Your task to perform on an android device: Empty the shopping cart on walmart. Image 0: 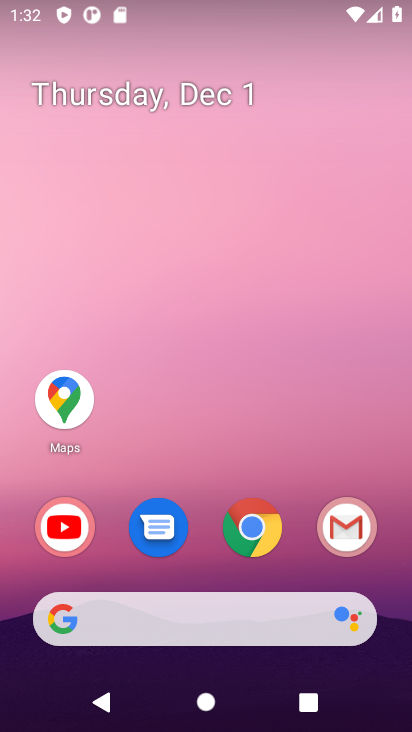
Step 0: click (258, 533)
Your task to perform on an android device: Empty the shopping cart on walmart. Image 1: 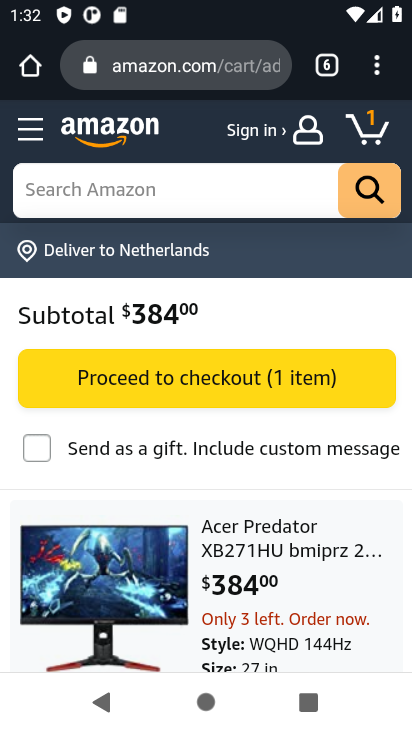
Step 1: click (146, 65)
Your task to perform on an android device: Empty the shopping cart on walmart. Image 2: 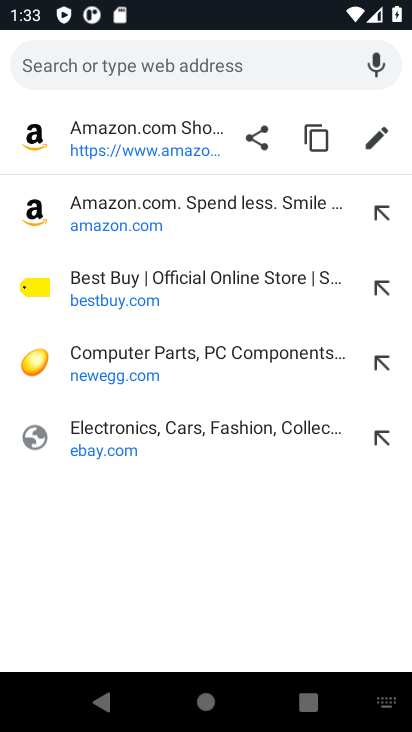
Step 2: type "walmart.com"
Your task to perform on an android device: Empty the shopping cart on walmart. Image 3: 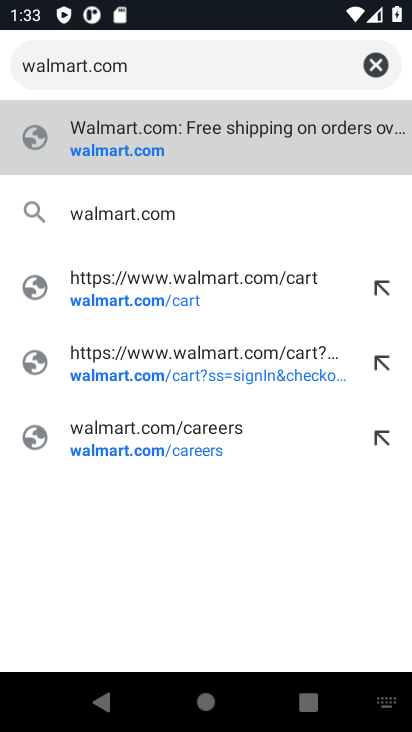
Step 3: click (142, 151)
Your task to perform on an android device: Empty the shopping cart on walmart. Image 4: 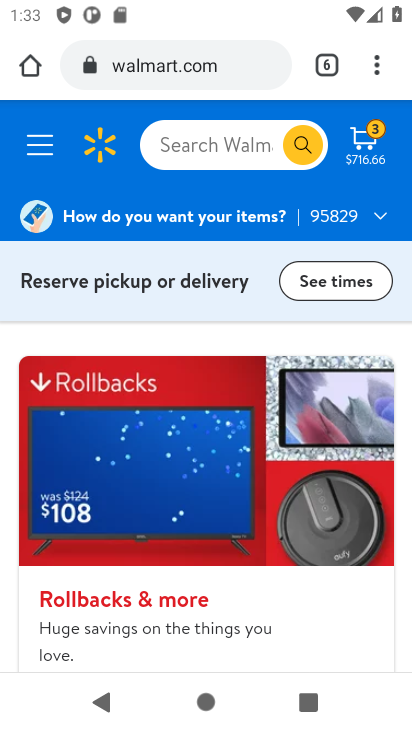
Step 4: click (375, 140)
Your task to perform on an android device: Empty the shopping cart on walmart. Image 5: 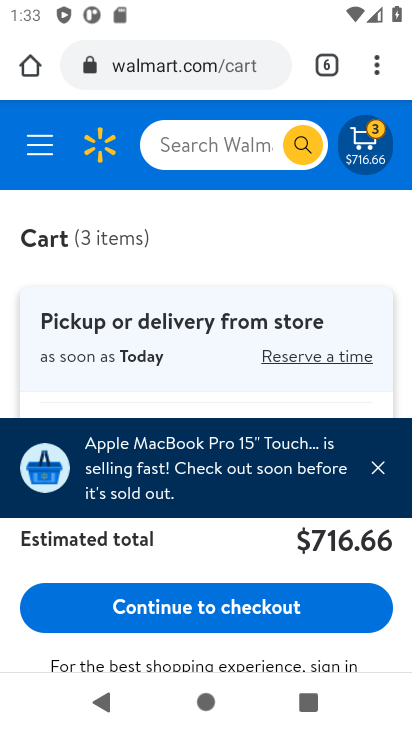
Step 5: drag from (218, 312) to (236, 116)
Your task to perform on an android device: Empty the shopping cart on walmart. Image 6: 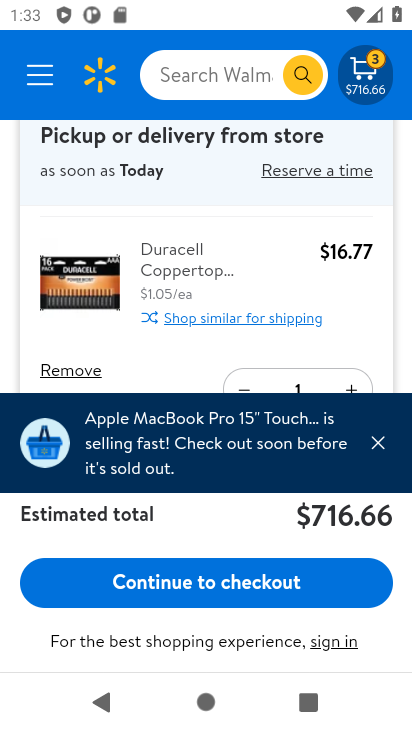
Step 6: click (381, 448)
Your task to perform on an android device: Empty the shopping cart on walmart. Image 7: 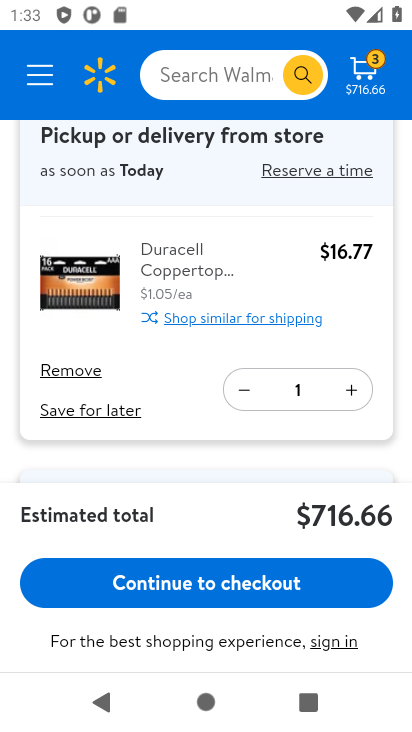
Step 7: click (80, 380)
Your task to perform on an android device: Empty the shopping cart on walmart. Image 8: 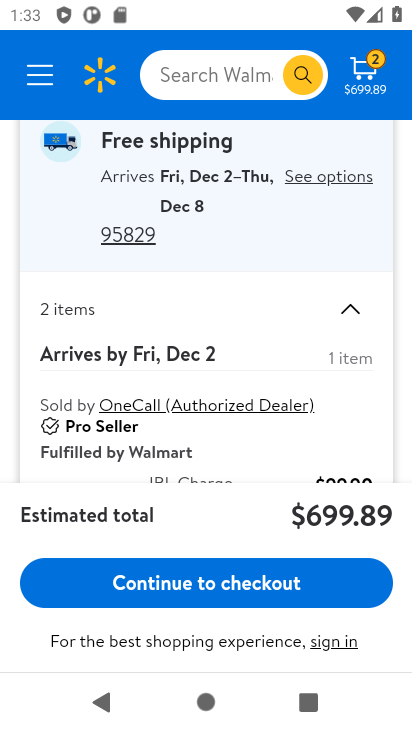
Step 8: drag from (186, 435) to (177, 282)
Your task to perform on an android device: Empty the shopping cart on walmart. Image 9: 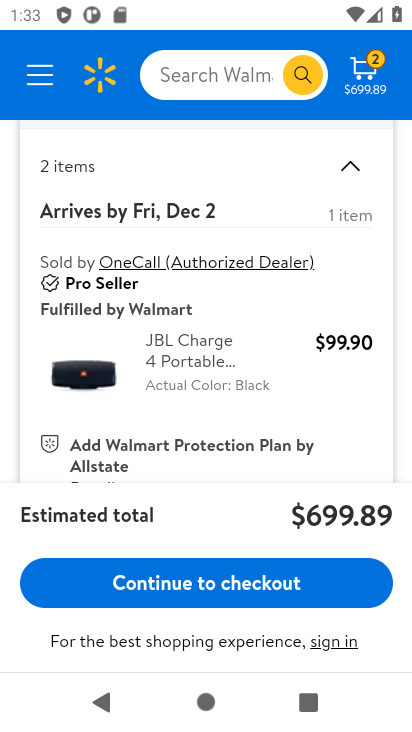
Step 9: drag from (122, 381) to (131, 258)
Your task to perform on an android device: Empty the shopping cart on walmart. Image 10: 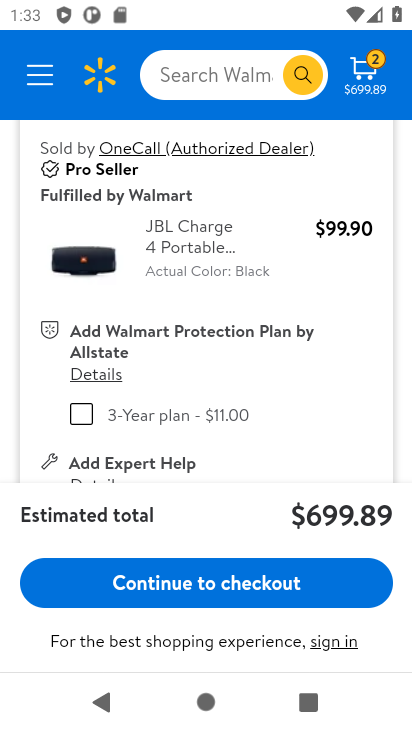
Step 10: drag from (111, 381) to (117, 246)
Your task to perform on an android device: Empty the shopping cart on walmart. Image 11: 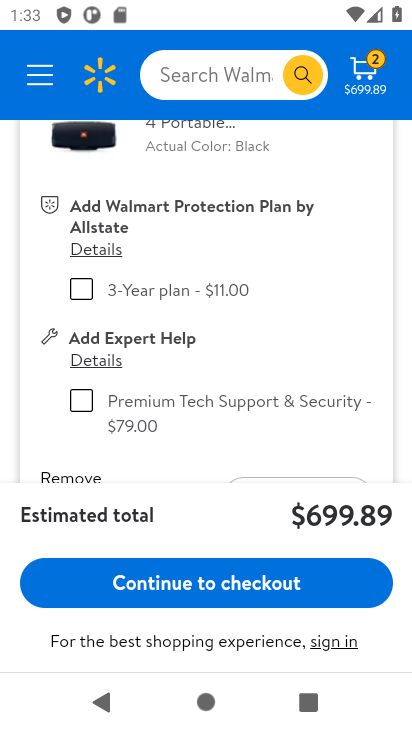
Step 11: drag from (108, 425) to (114, 306)
Your task to perform on an android device: Empty the shopping cart on walmart. Image 12: 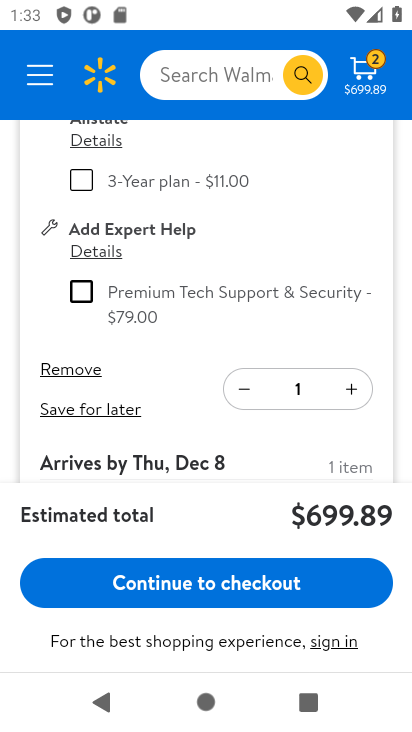
Step 12: click (65, 372)
Your task to perform on an android device: Empty the shopping cart on walmart. Image 13: 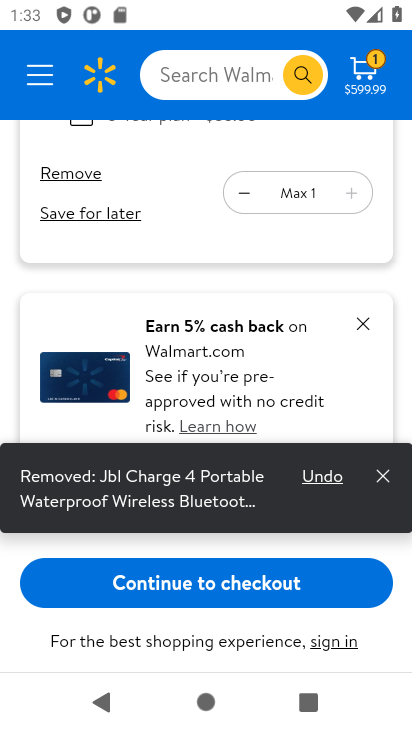
Step 13: click (81, 173)
Your task to perform on an android device: Empty the shopping cart on walmart. Image 14: 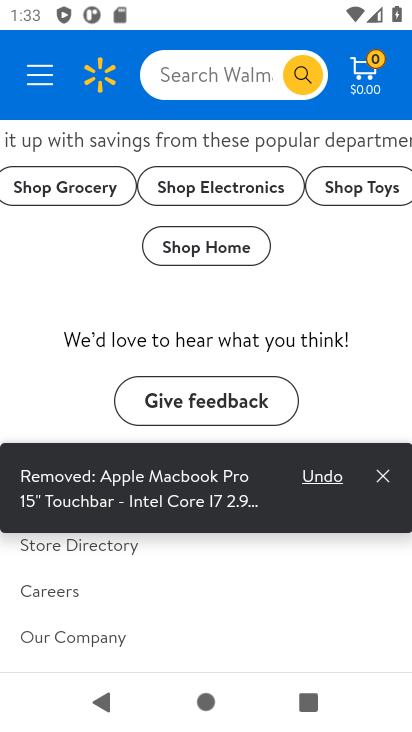
Step 14: task complete